Your task to perform on an android device: What's the weather going to be tomorrow? Image 0: 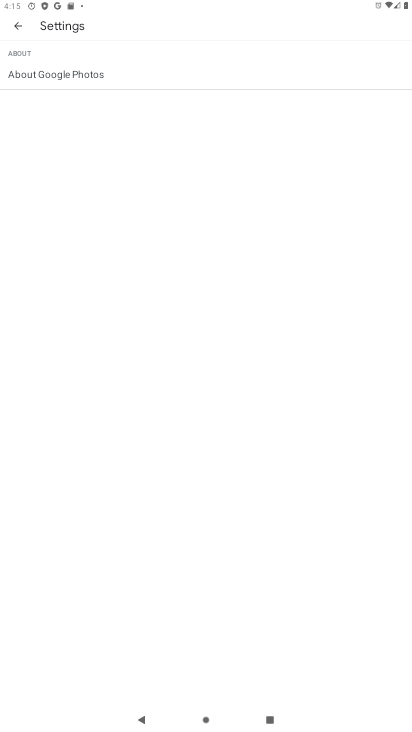
Step 0: press home button
Your task to perform on an android device: What's the weather going to be tomorrow? Image 1: 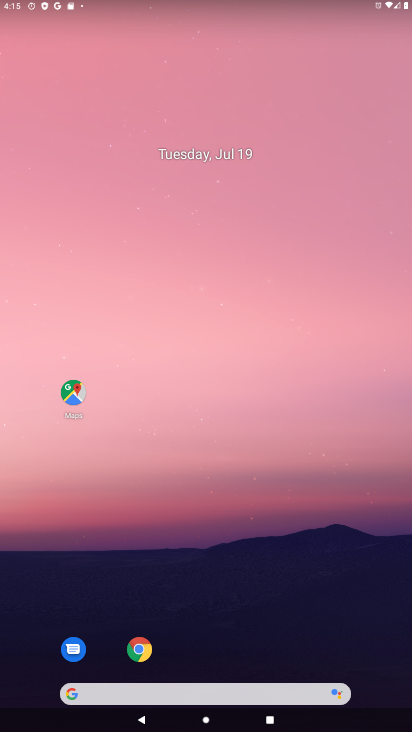
Step 1: drag from (238, 635) to (161, 134)
Your task to perform on an android device: What's the weather going to be tomorrow? Image 2: 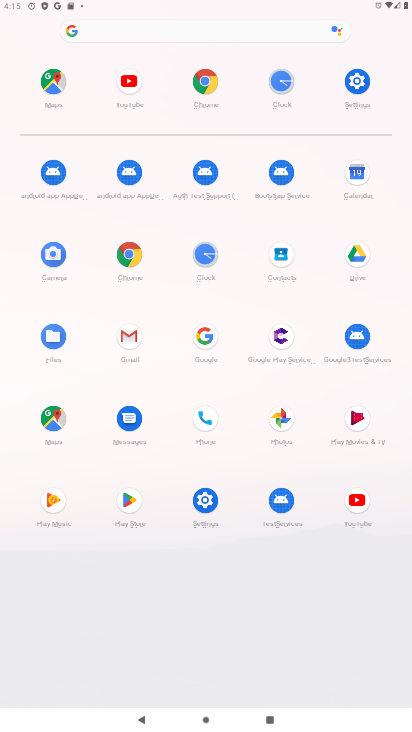
Step 2: click (211, 77)
Your task to perform on an android device: What's the weather going to be tomorrow? Image 3: 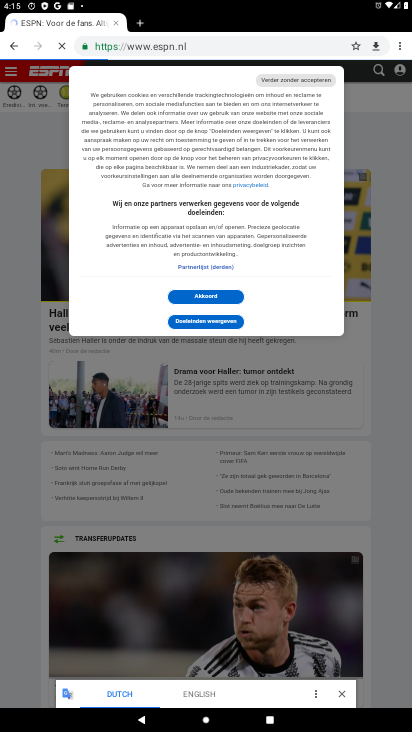
Step 3: click (179, 46)
Your task to perform on an android device: What's the weather going to be tomorrow? Image 4: 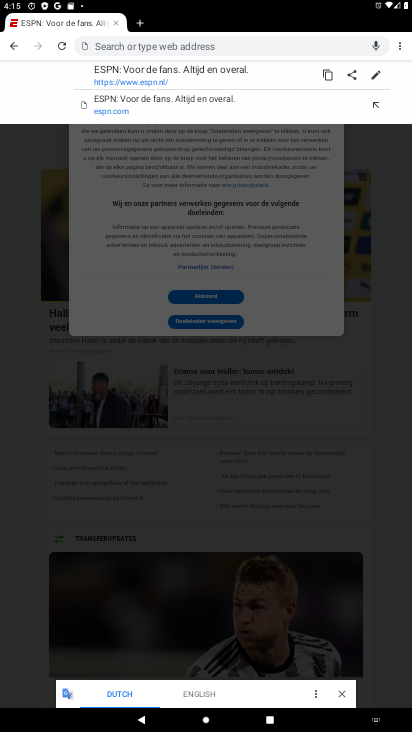
Step 4: type "What's the weather going to be tomorrow?"
Your task to perform on an android device: What's the weather going to be tomorrow? Image 5: 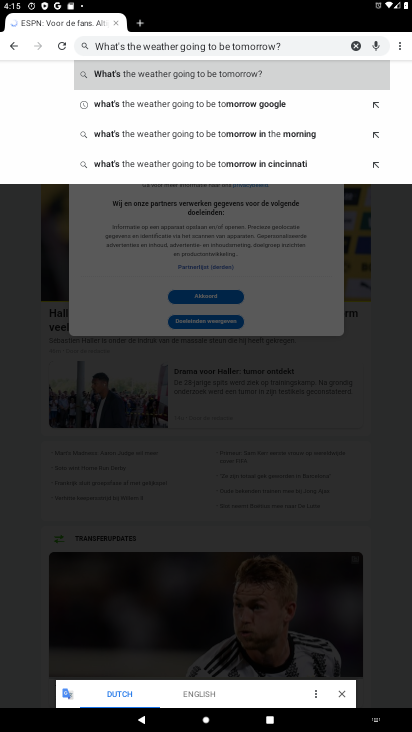
Step 5: click (226, 71)
Your task to perform on an android device: What's the weather going to be tomorrow? Image 6: 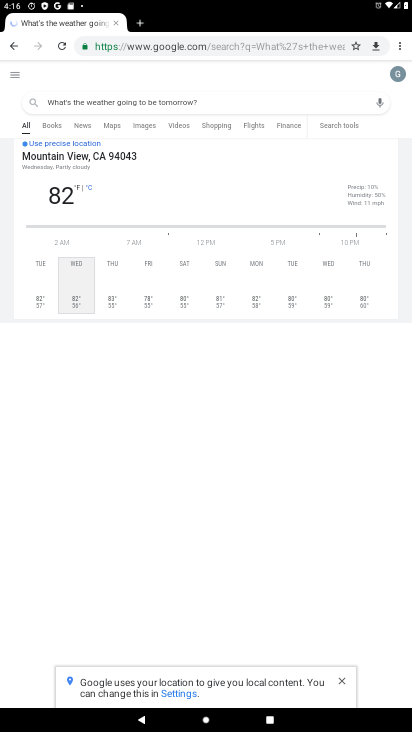
Step 6: task complete